Your task to perform on an android device: Open settings Image 0: 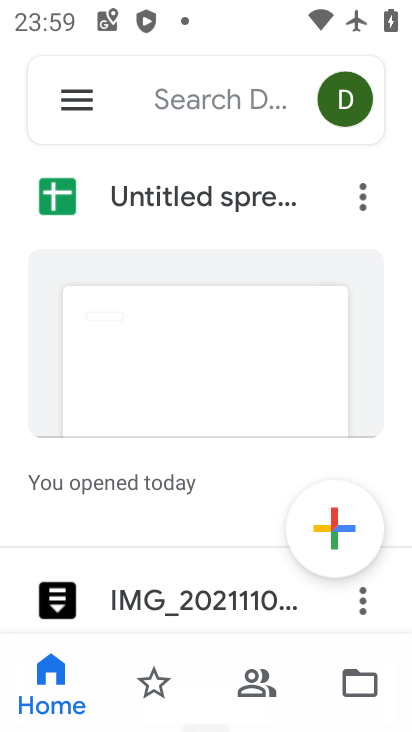
Step 0: press home button
Your task to perform on an android device: Open settings Image 1: 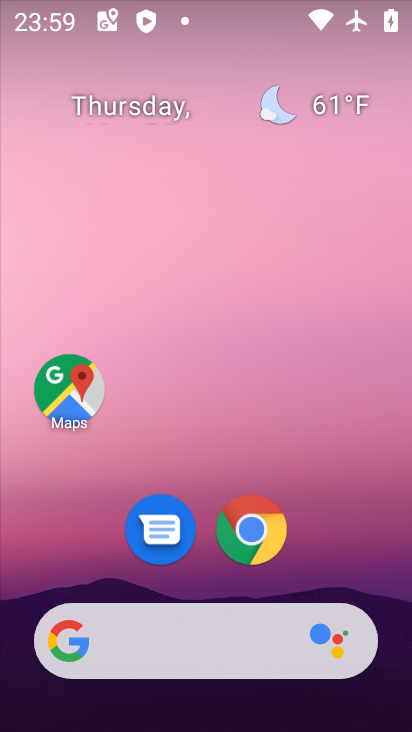
Step 1: drag from (356, 587) to (331, 223)
Your task to perform on an android device: Open settings Image 2: 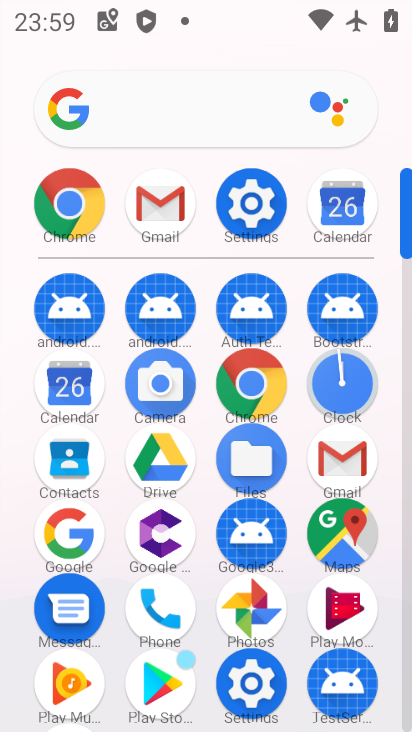
Step 2: click (265, 192)
Your task to perform on an android device: Open settings Image 3: 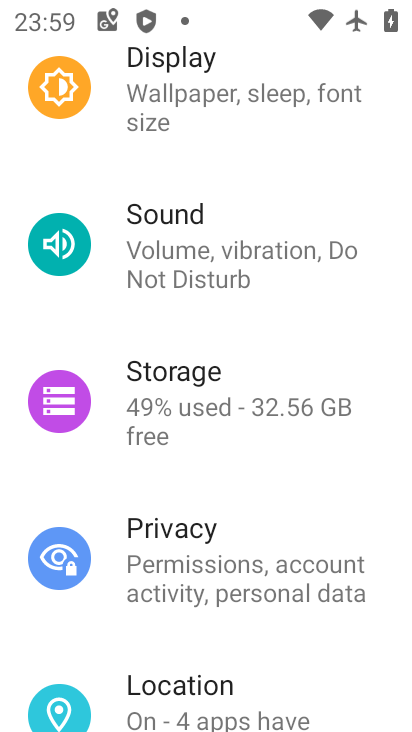
Step 3: task complete